Your task to perform on an android device: Open Yahoo.com Image 0: 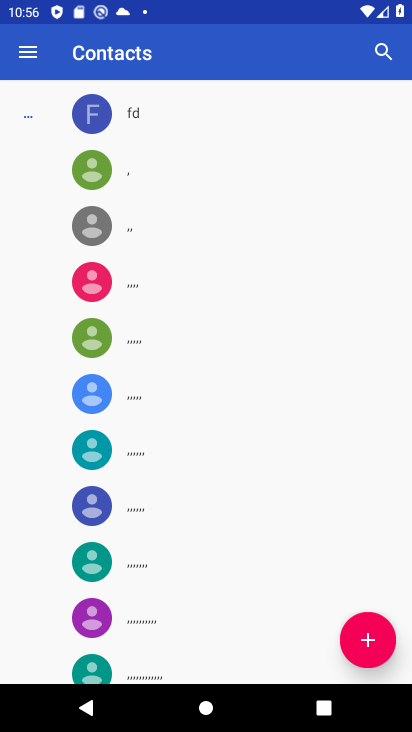
Step 0: press home button
Your task to perform on an android device: Open Yahoo.com Image 1: 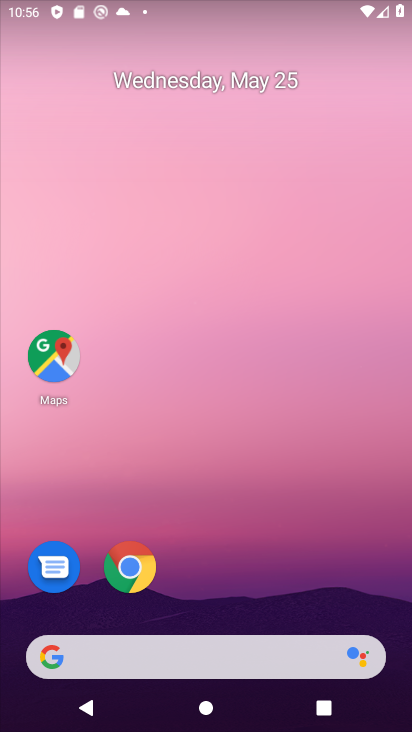
Step 1: click (135, 565)
Your task to perform on an android device: Open Yahoo.com Image 2: 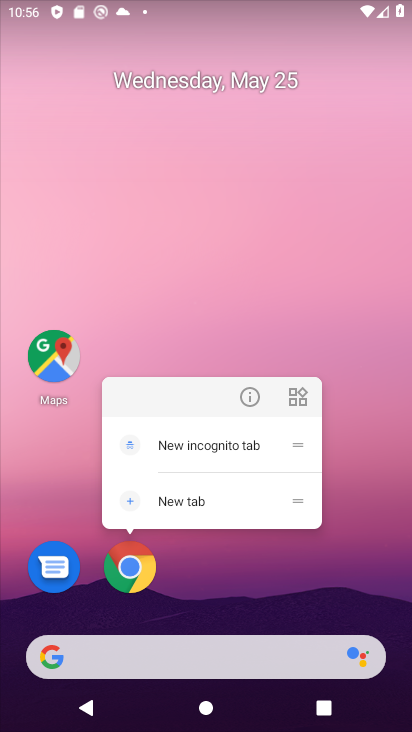
Step 2: click (134, 566)
Your task to perform on an android device: Open Yahoo.com Image 3: 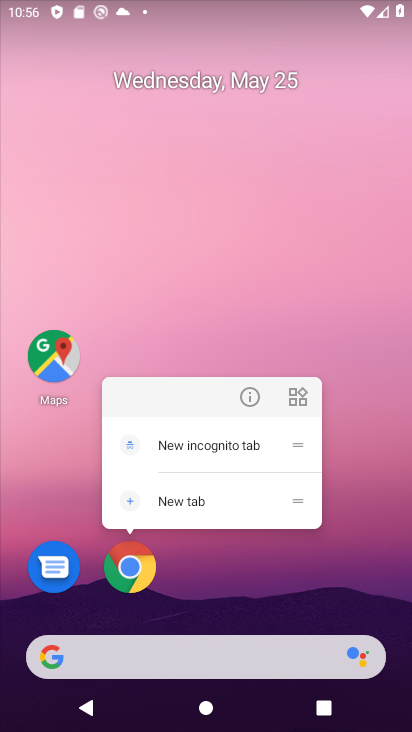
Step 3: click (133, 563)
Your task to perform on an android device: Open Yahoo.com Image 4: 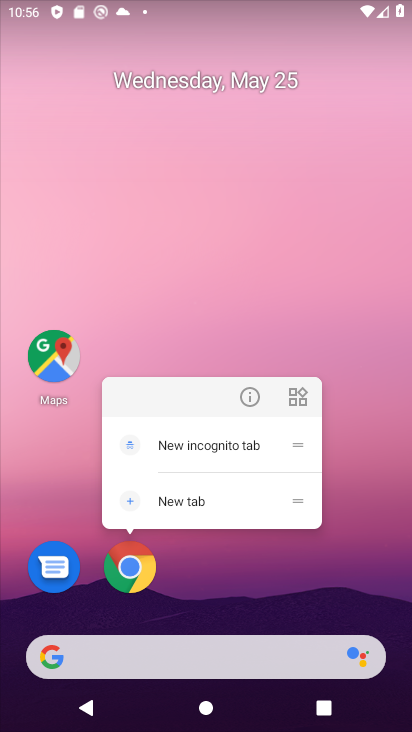
Step 4: click (133, 563)
Your task to perform on an android device: Open Yahoo.com Image 5: 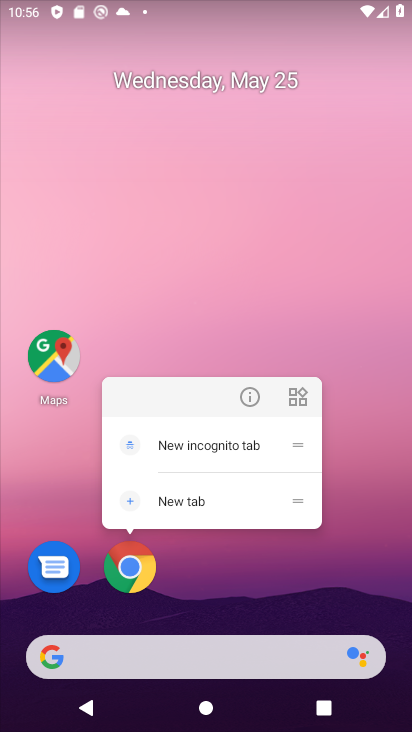
Step 5: click (135, 564)
Your task to perform on an android device: Open Yahoo.com Image 6: 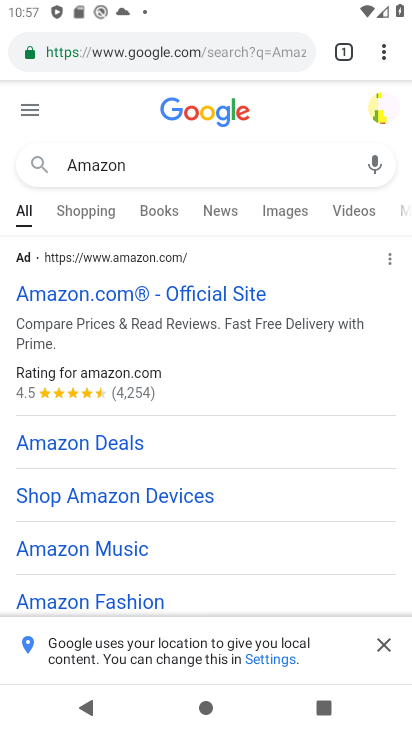
Step 6: click (193, 41)
Your task to perform on an android device: Open Yahoo.com Image 7: 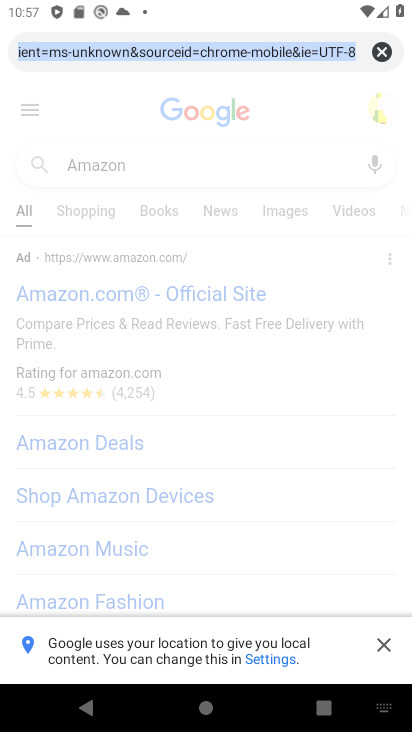
Step 7: type "yahoo.com"
Your task to perform on an android device: Open Yahoo.com Image 8: 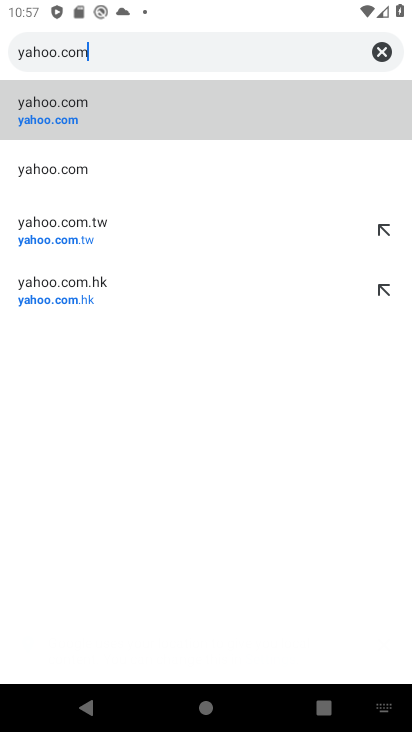
Step 8: click (122, 118)
Your task to perform on an android device: Open Yahoo.com Image 9: 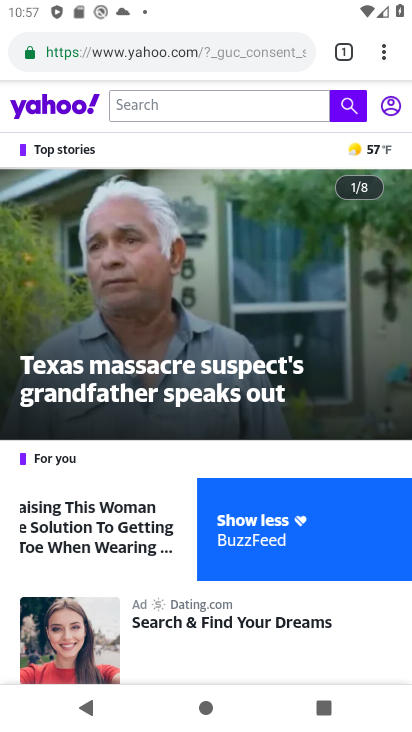
Step 9: task complete